Your task to perform on an android device: toggle data saver in the chrome app Image 0: 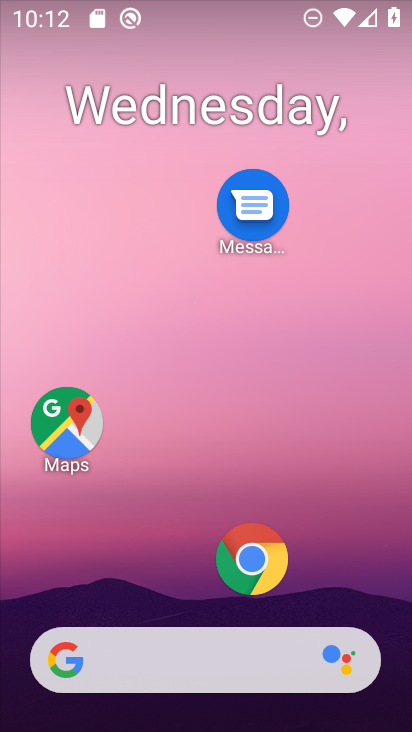
Step 0: drag from (118, 613) to (212, 130)
Your task to perform on an android device: toggle data saver in the chrome app Image 1: 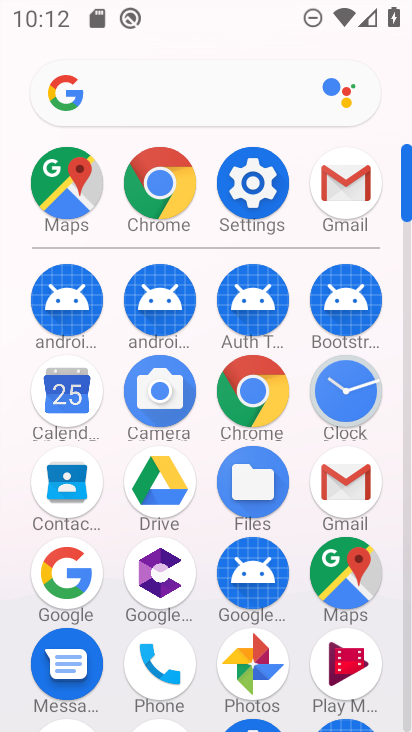
Step 1: click (167, 191)
Your task to perform on an android device: toggle data saver in the chrome app Image 2: 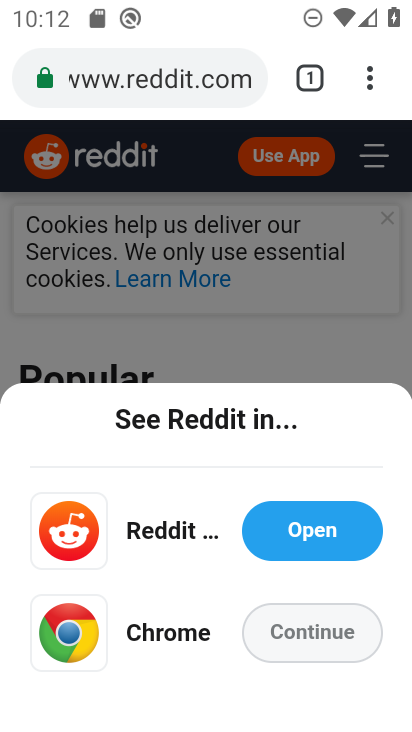
Step 2: click (369, 90)
Your task to perform on an android device: toggle data saver in the chrome app Image 3: 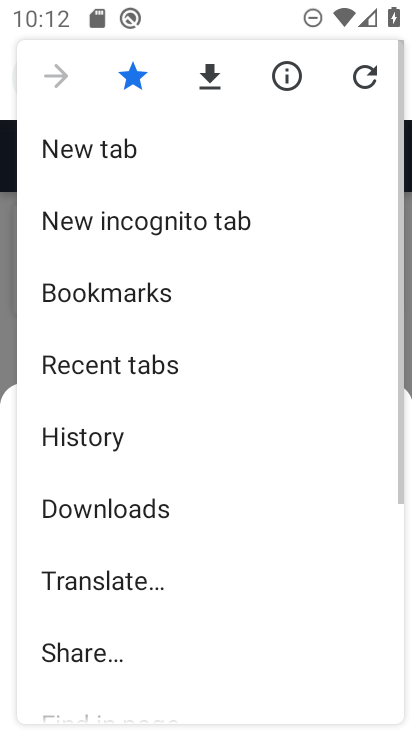
Step 3: drag from (182, 499) to (244, 128)
Your task to perform on an android device: toggle data saver in the chrome app Image 4: 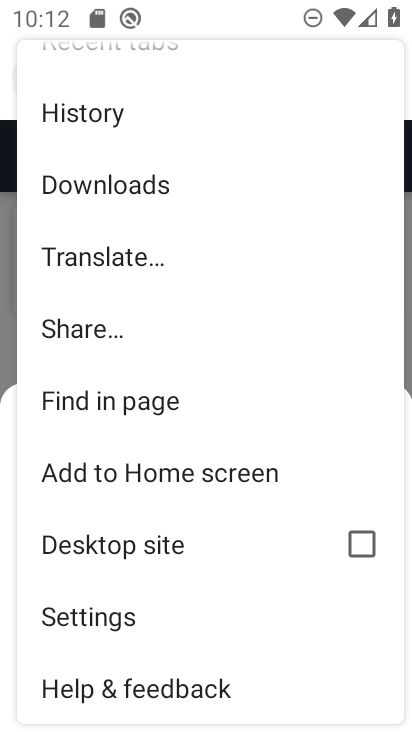
Step 4: click (139, 613)
Your task to perform on an android device: toggle data saver in the chrome app Image 5: 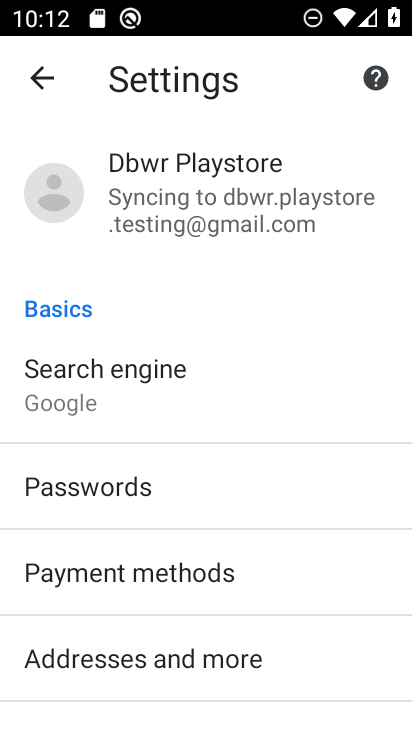
Step 5: drag from (138, 559) to (125, 281)
Your task to perform on an android device: toggle data saver in the chrome app Image 6: 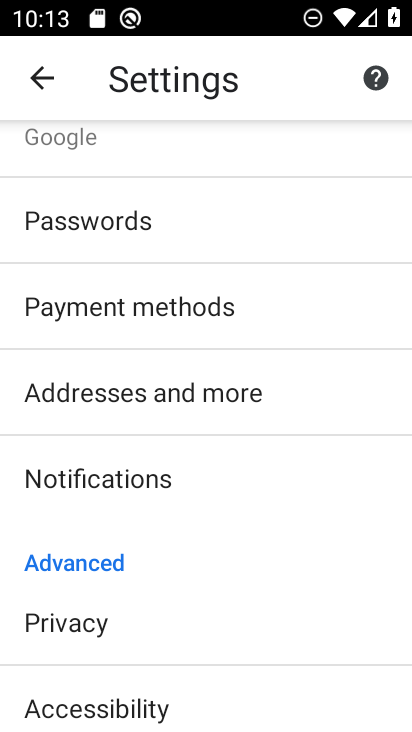
Step 6: drag from (148, 554) to (172, 256)
Your task to perform on an android device: toggle data saver in the chrome app Image 7: 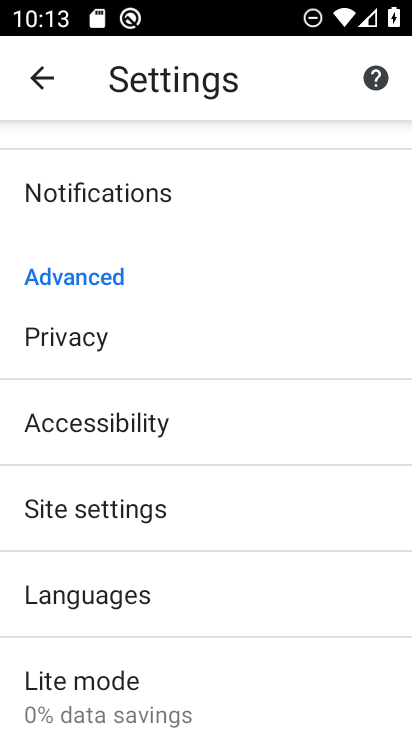
Step 7: drag from (152, 535) to (152, 438)
Your task to perform on an android device: toggle data saver in the chrome app Image 8: 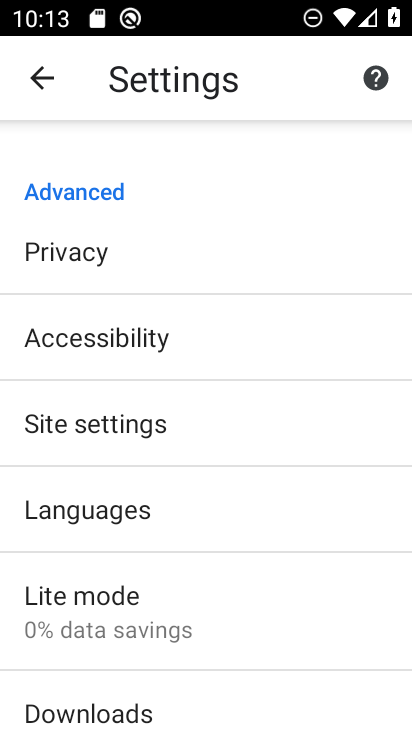
Step 8: drag from (128, 558) to (149, 365)
Your task to perform on an android device: toggle data saver in the chrome app Image 9: 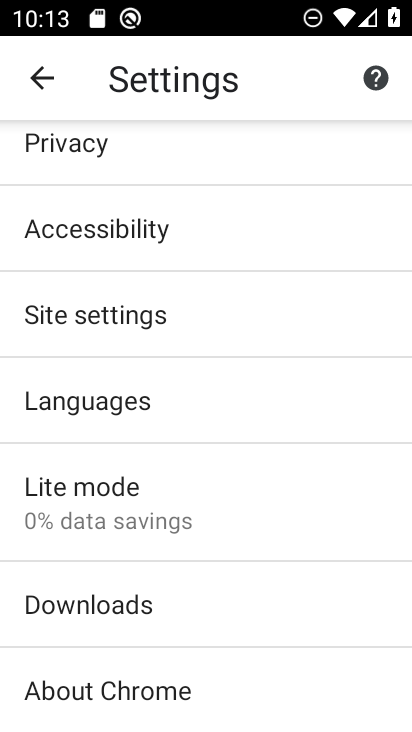
Step 9: click (143, 505)
Your task to perform on an android device: toggle data saver in the chrome app Image 10: 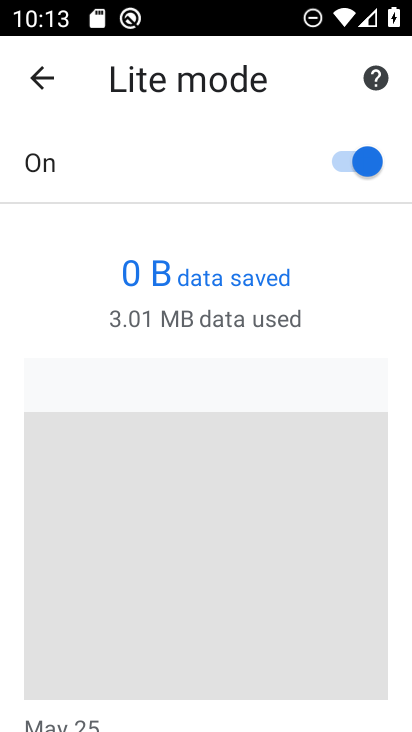
Step 10: click (300, 191)
Your task to perform on an android device: toggle data saver in the chrome app Image 11: 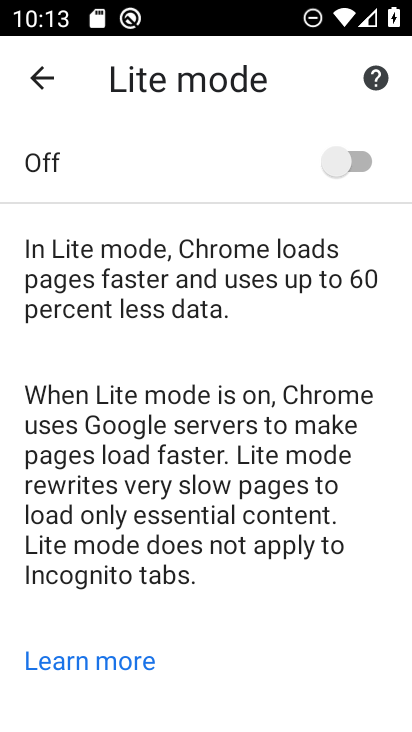
Step 11: task complete